Your task to perform on an android device: Go to Google maps Image 0: 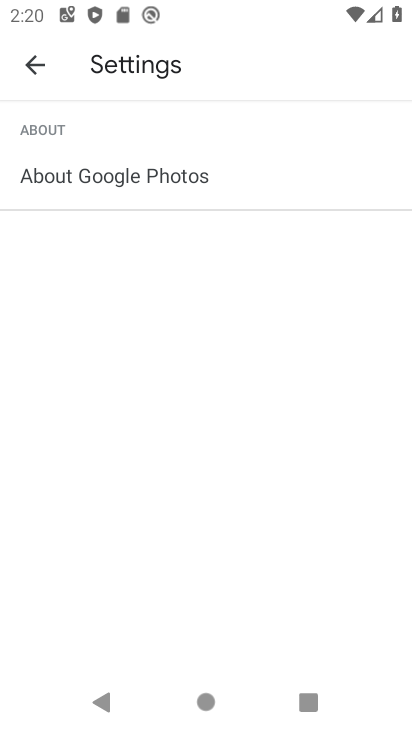
Step 0: press home button
Your task to perform on an android device: Go to Google maps Image 1: 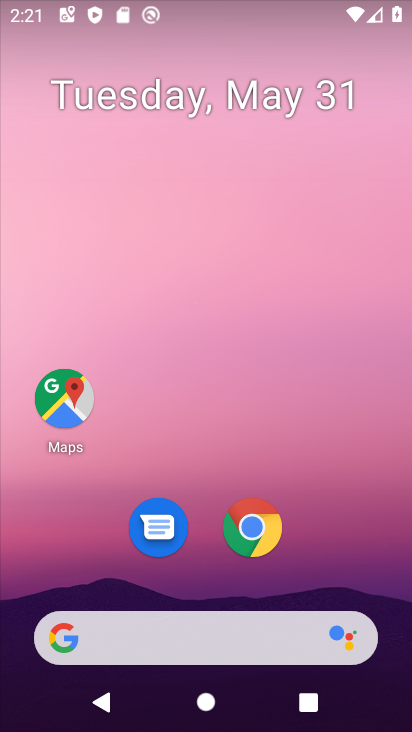
Step 1: drag from (342, 573) to (337, 164)
Your task to perform on an android device: Go to Google maps Image 2: 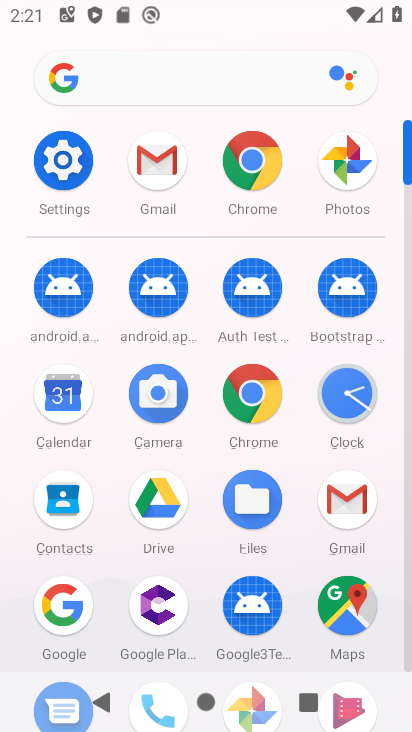
Step 2: click (354, 604)
Your task to perform on an android device: Go to Google maps Image 3: 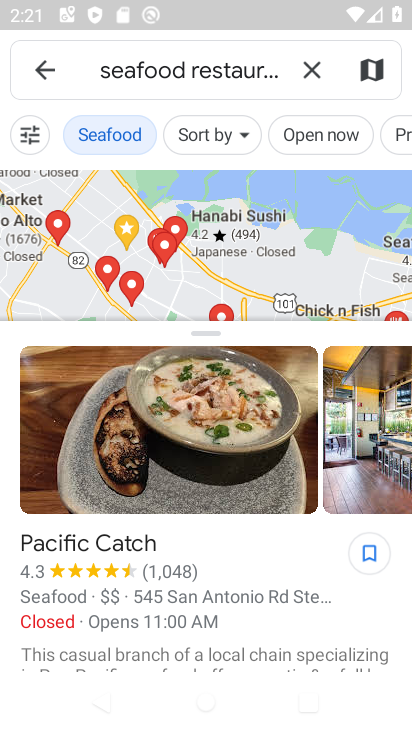
Step 3: task complete